Your task to perform on an android device: turn notification dots off Image 0: 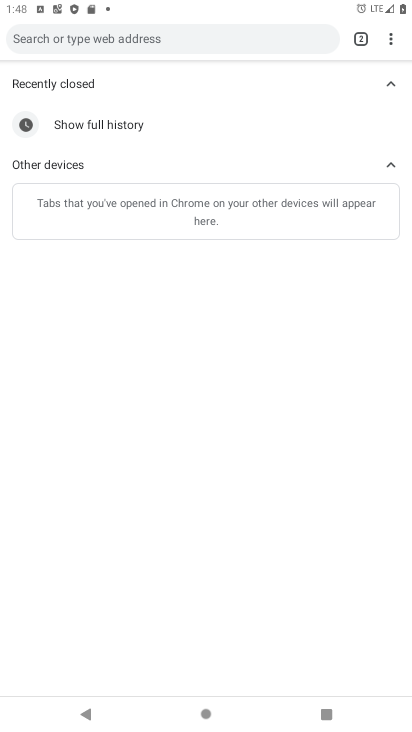
Step 0: press home button
Your task to perform on an android device: turn notification dots off Image 1: 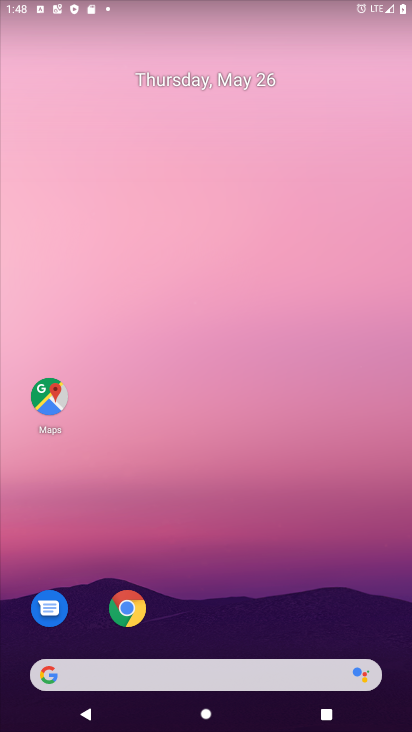
Step 1: drag from (341, 578) to (320, 254)
Your task to perform on an android device: turn notification dots off Image 2: 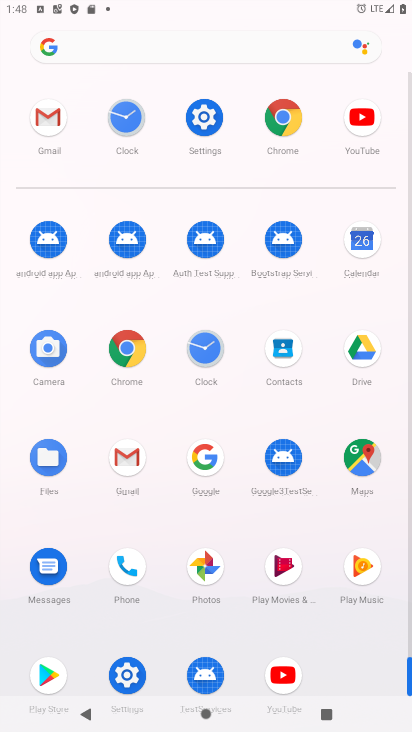
Step 2: click (121, 669)
Your task to perform on an android device: turn notification dots off Image 3: 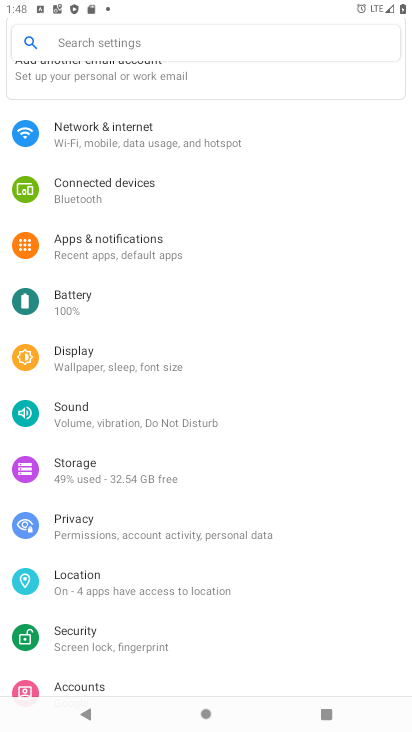
Step 3: click (93, 232)
Your task to perform on an android device: turn notification dots off Image 4: 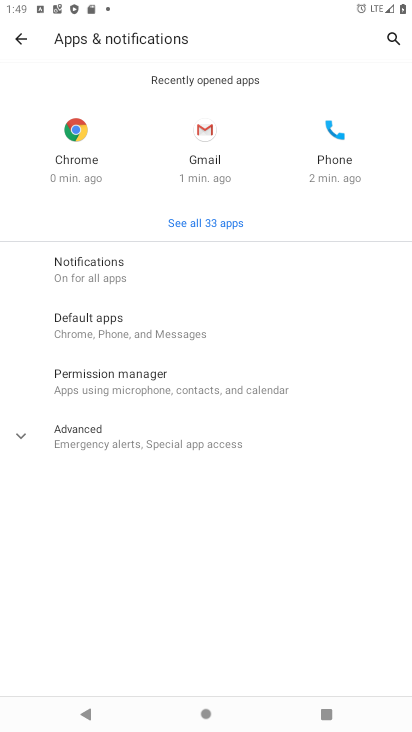
Step 4: click (82, 264)
Your task to perform on an android device: turn notification dots off Image 5: 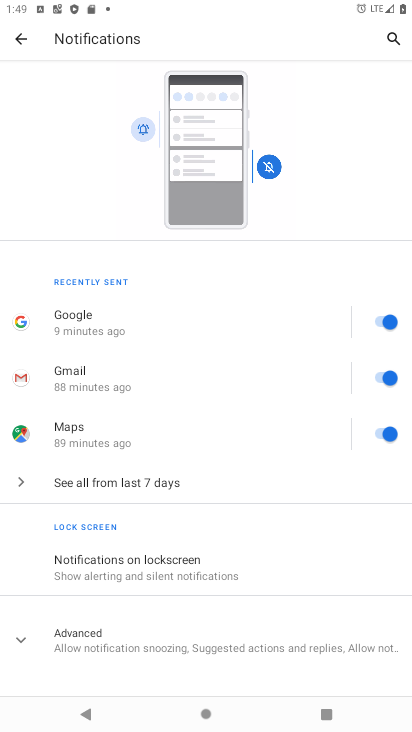
Step 5: drag from (126, 608) to (131, 431)
Your task to perform on an android device: turn notification dots off Image 6: 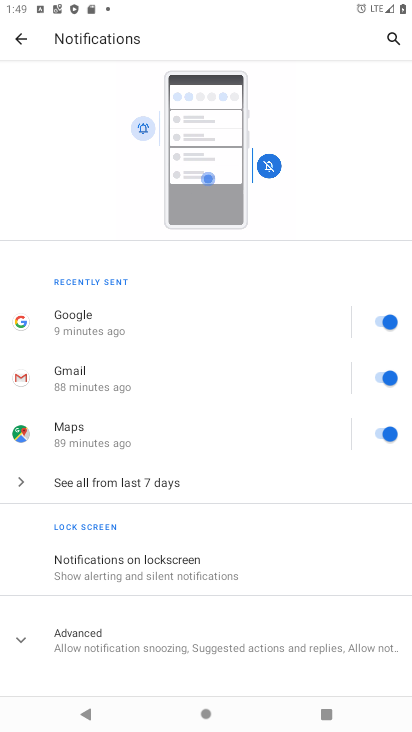
Step 6: click (13, 646)
Your task to perform on an android device: turn notification dots off Image 7: 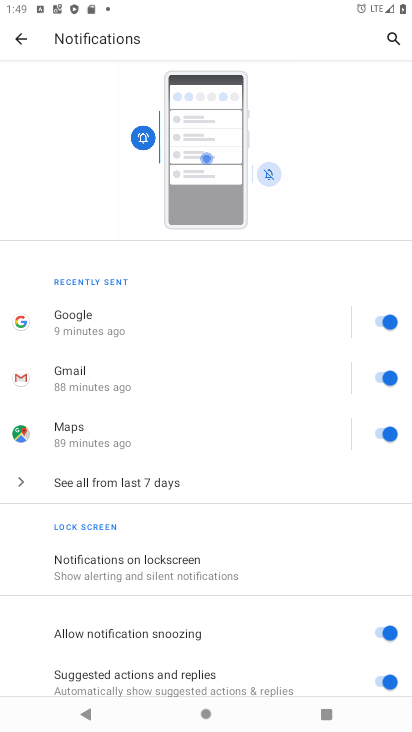
Step 7: task complete